Your task to perform on an android device: star an email in the gmail app Image 0: 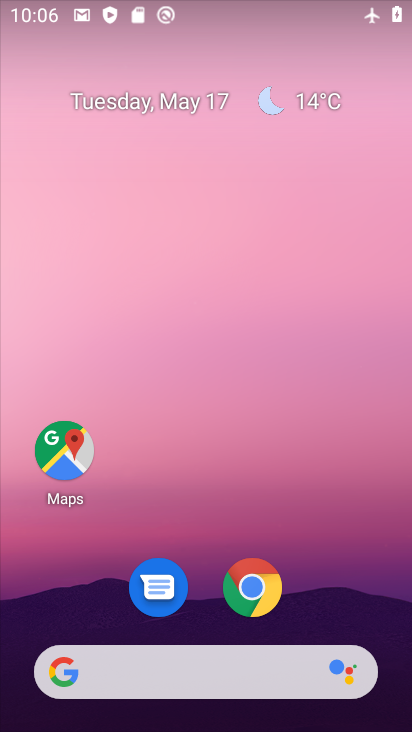
Step 0: drag from (308, 628) to (224, 275)
Your task to perform on an android device: star an email in the gmail app Image 1: 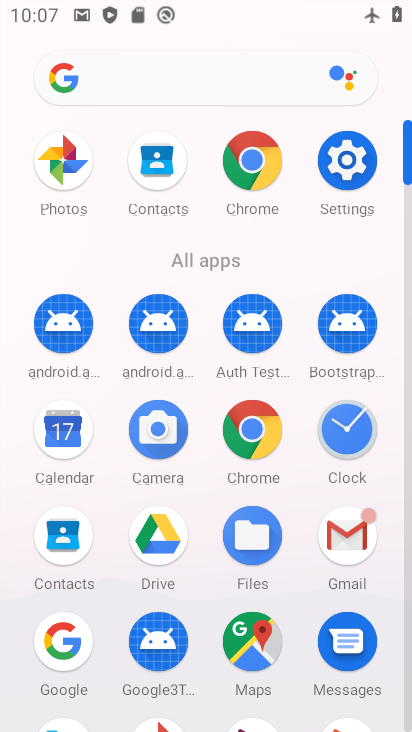
Step 1: click (339, 530)
Your task to perform on an android device: star an email in the gmail app Image 2: 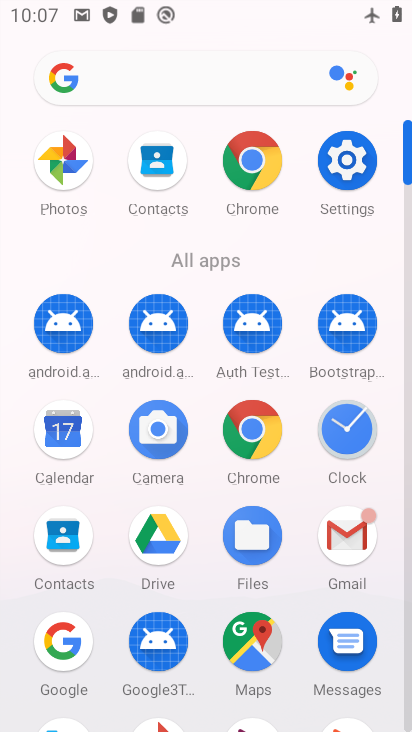
Step 2: click (343, 528)
Your task to perform on an android device: star an email in the gmail app Image 3: 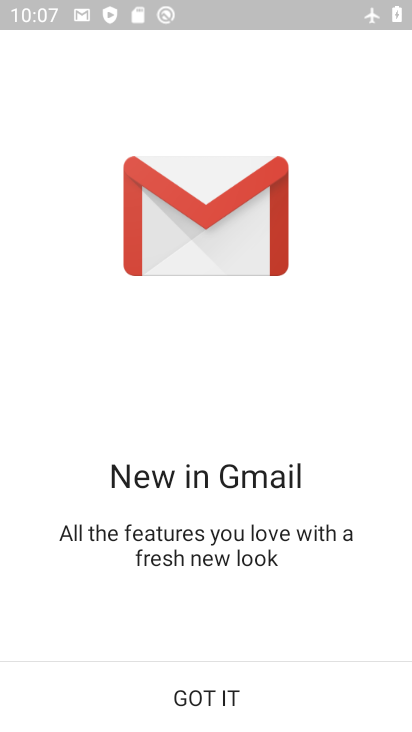
Step 3: click (232, 676)
Your task to perform on an android device: star an email in the gmail app Image 4: 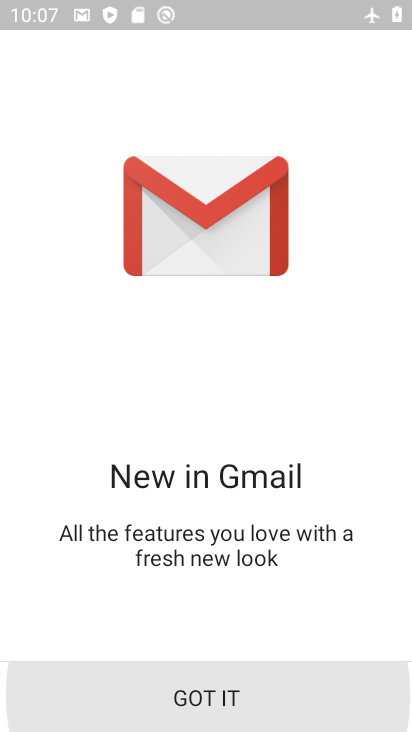
Step 4: click (232, 677)
Your task to perform on an android device: star an email in the gmail app Image 5: 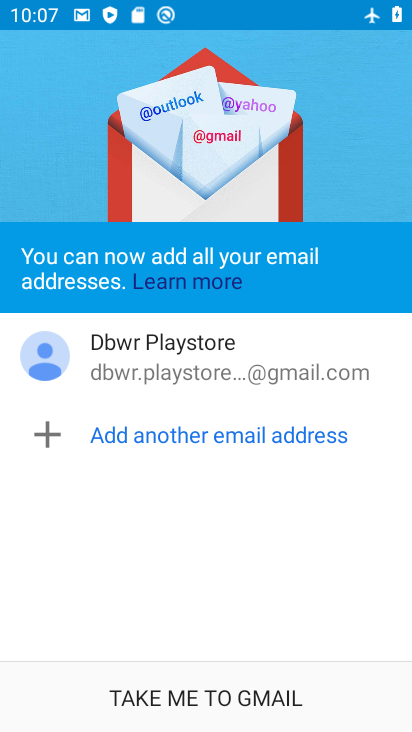
Step 5: click (227, 686)
Your task to perform on an android device: star an email in the gmail app Image 6: 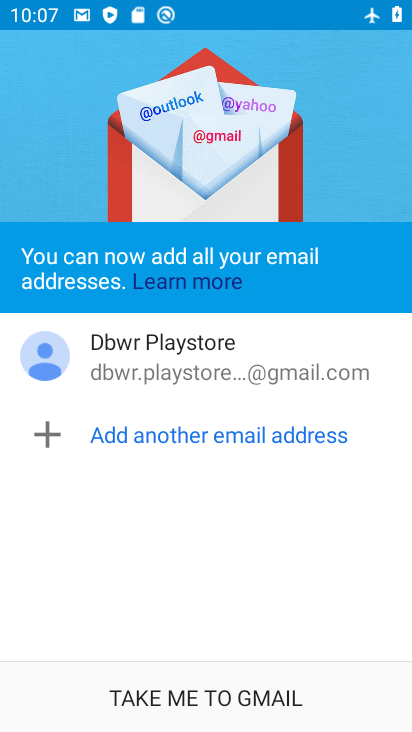
Step 6: click (227, 686)
Your task to perform on an android device: star an email in the gmail app Image 7: 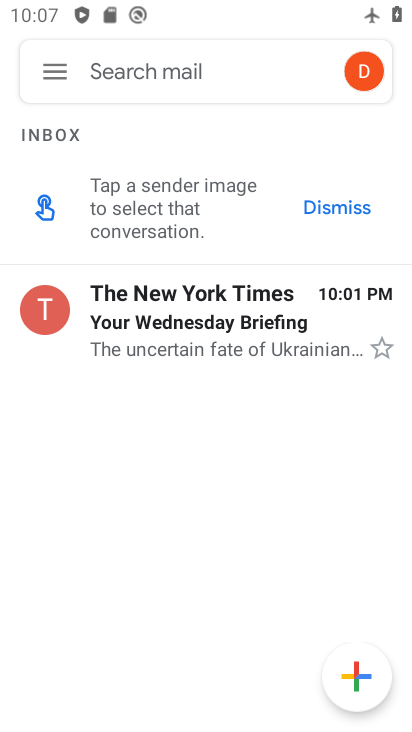
Step 7: click (193, 325)
Your task to perform on an android device: star an email in the gmail app Image 8: 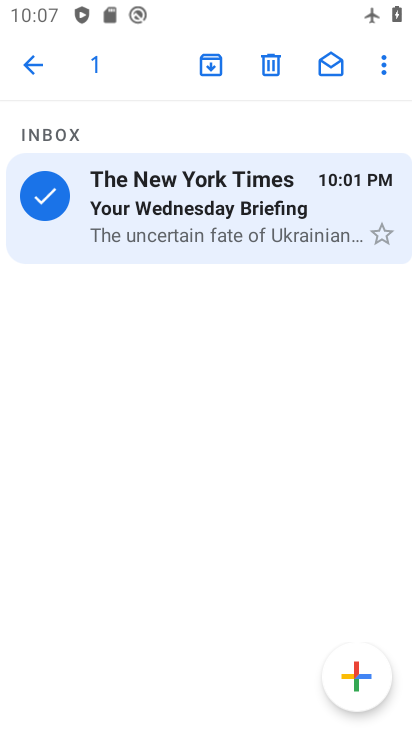
Step 8: click (370, 66)
Your task to perform on an android device: star an email in the gmail app Image 9: 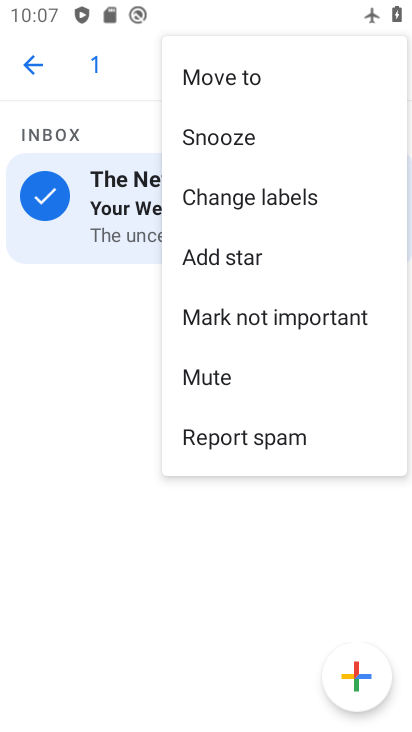
Step 9: click (236, 254)
Your task to perform on an android device: star an email in the gmail app Image 10: 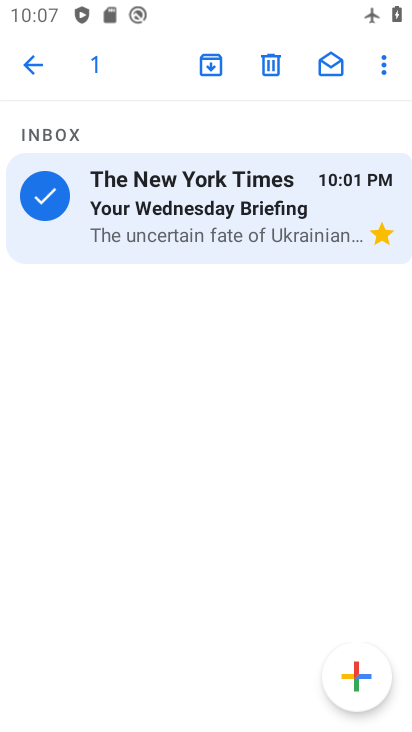
Step 10: task complete